Your task to perform on an android device: Open location settings Image 0: 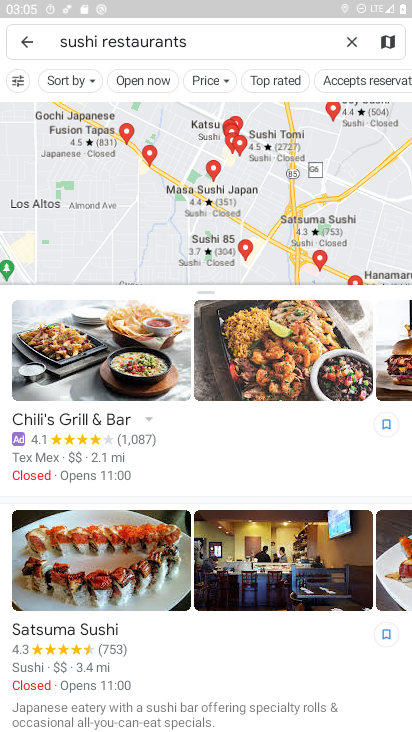
Step 0: press home button
Your task to perform on an android device: Open location settings Image 1: 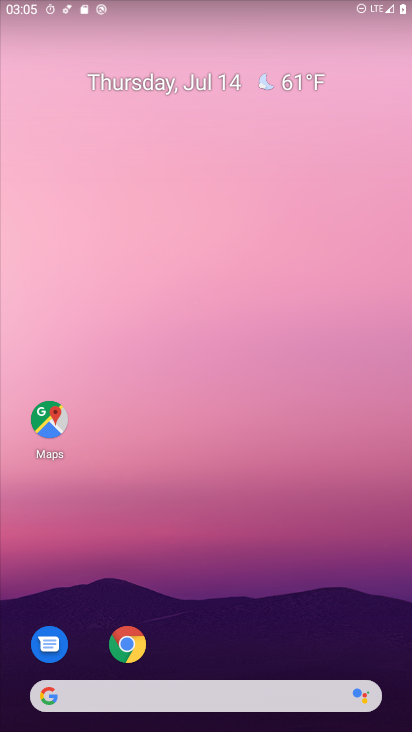
Step 1: drag from (281, 636) to (255, 68)
Your task to perform on an android device: Open location settings Image 2: 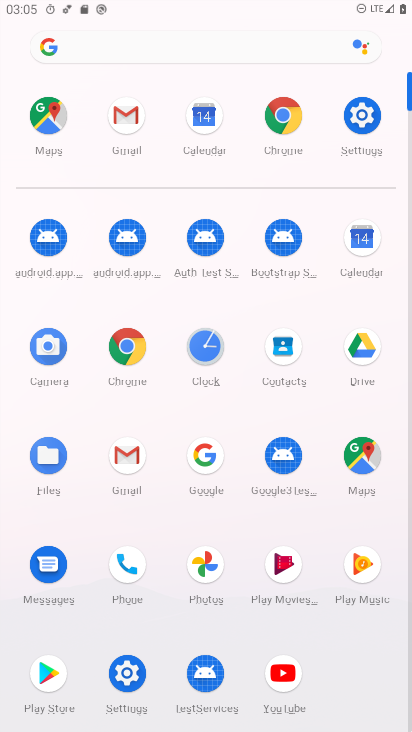
Step 2: click (376, 114)
Your task to perform on an android device: Open location settings Image 3: 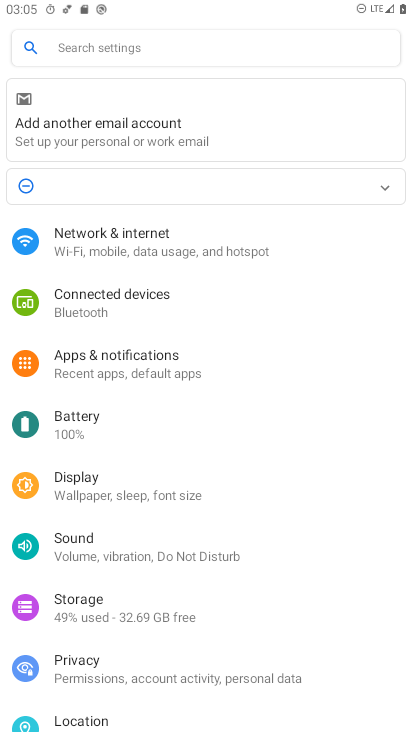
Step 3: drag from (239, 683) to (269, 175)
Your task to perform on an android device: Open location settings Image 4: 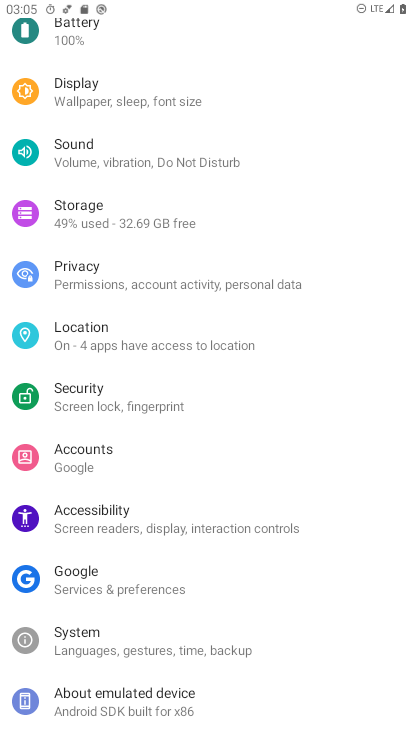
Step 4: click (128, 337)
Your task to perform on an android device: Open location settings Image 5: 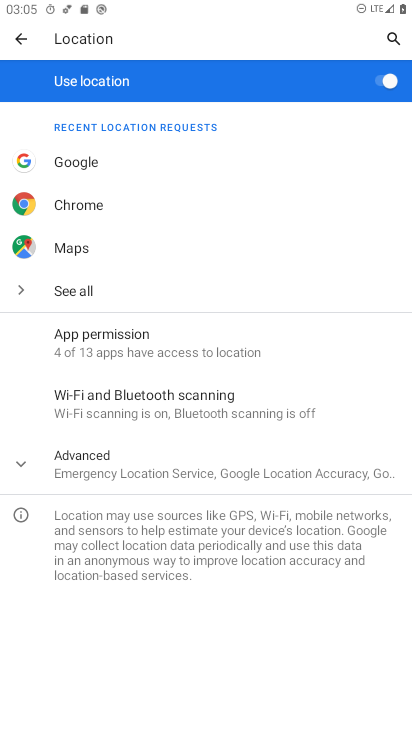
Step 5: task complete